Your task to perform on an android device: turn off improve location accuracy Image 0: 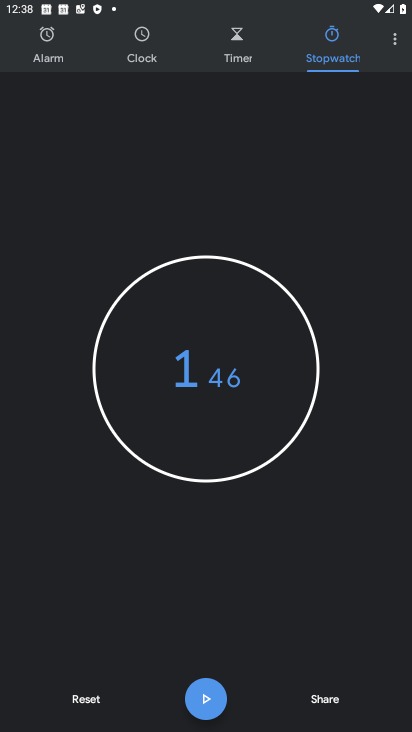
Step 0: press home button
Your task to perform on an android device: turn off improve location accuracy Image 1: 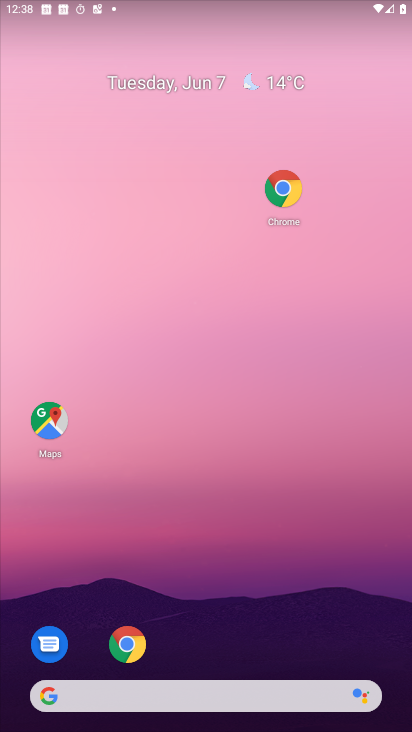
Step 1: drag from (311, 578) to (252, 120)
Your task to perform on an android device: turn off improve location accuracy Image 2: 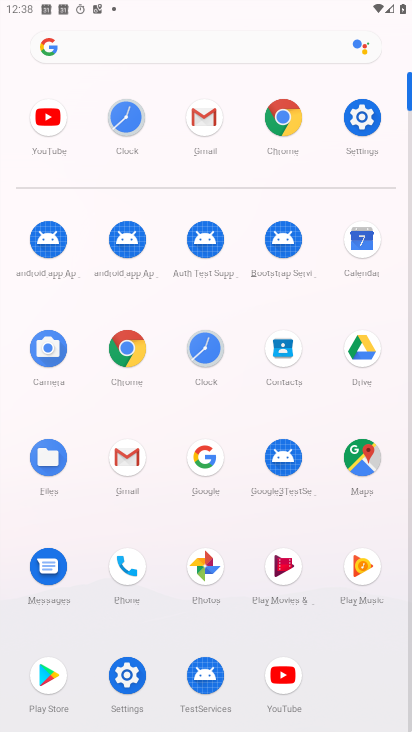
Step 2: click (374, 114)
Your task to perform on an android device: turn off improve location accuracy Image 3: 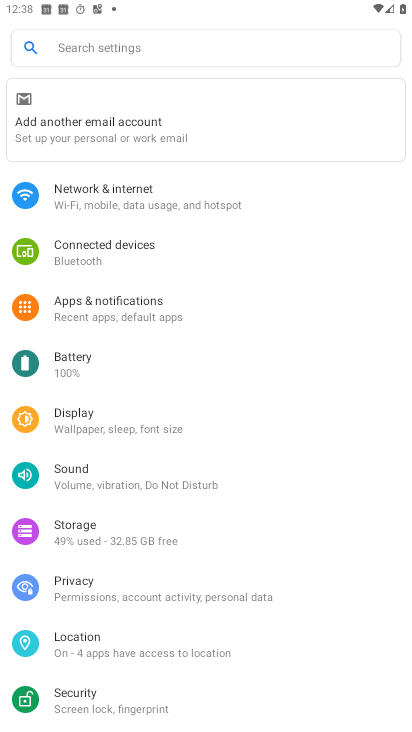
Step 3: click (103, 641)
Your task to perform on an android device: turn off improve location accuracy Image 4: 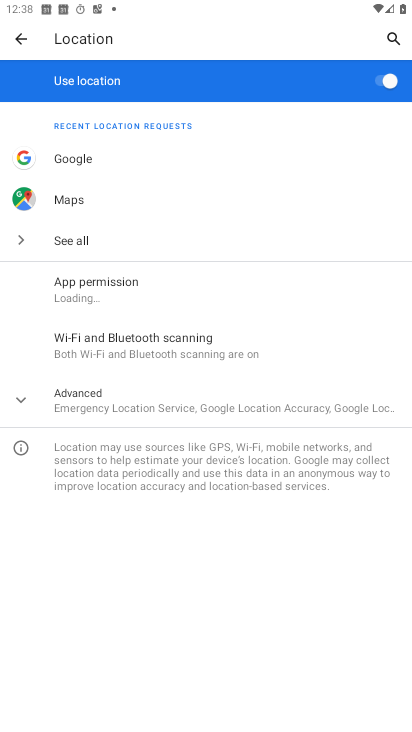
Step 4: click (146, 404)
Your task to perform on an android device: turn off improve location accuracy Image 5: 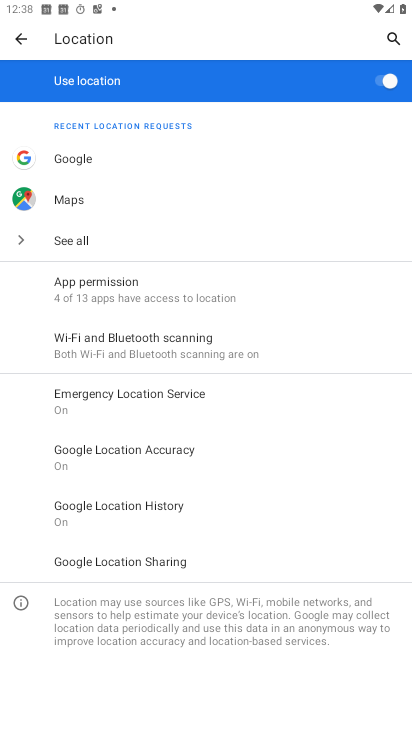
Step 5: click (164, 450)
Your task to perform on an android device: turn off improve location accuracy Image 6: 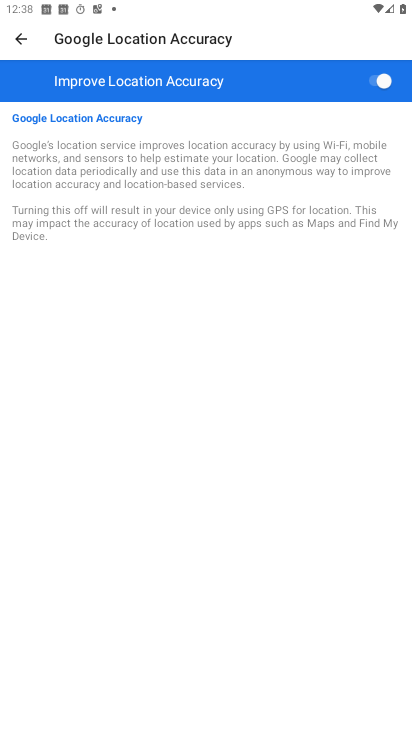
Step 6: click (376, 80)
Your task to perform on an android device: turn off improve location accuracy Image 7: 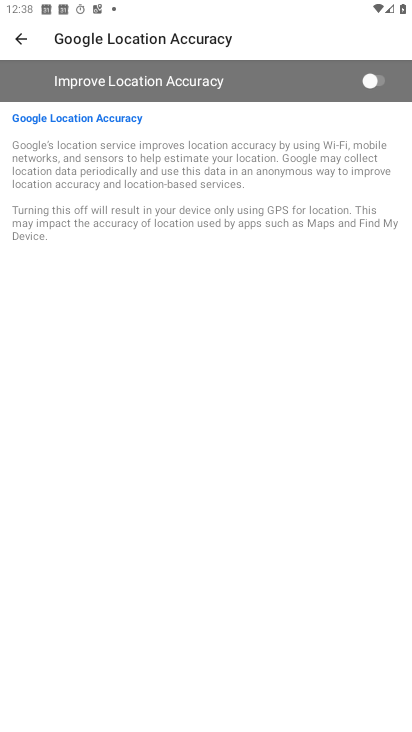
Step 7: task complete